Your task to perform on an android device: turn off javascript in the chrome app Image 0: 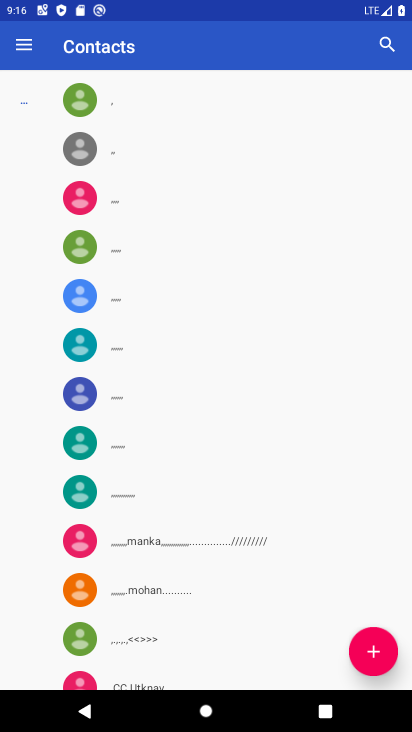
Step 0: press home button
Your task to perform on an android device: turn off javascript in the chrome app Image 1: 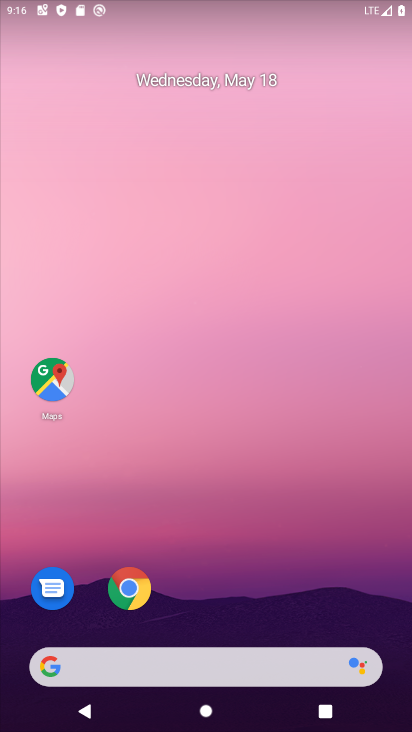
Step 1: click (134, 597)
Your task to perform on an android device: turn off javascript in the chrome app Image 2: 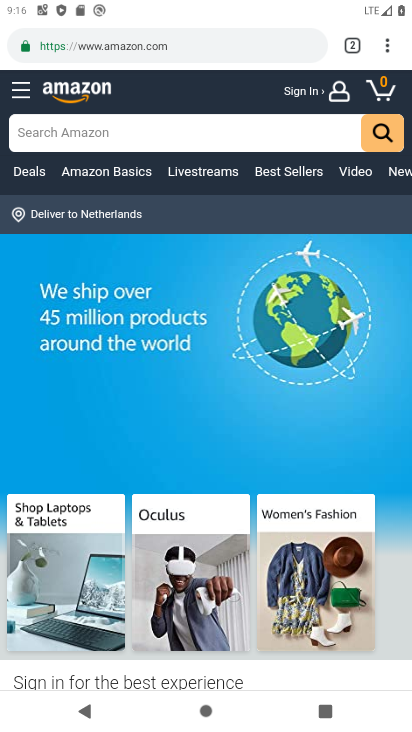
Step 2: click (387, 43)
Your task to perform on an android device: turn off javascript in the chrome app Image 3: 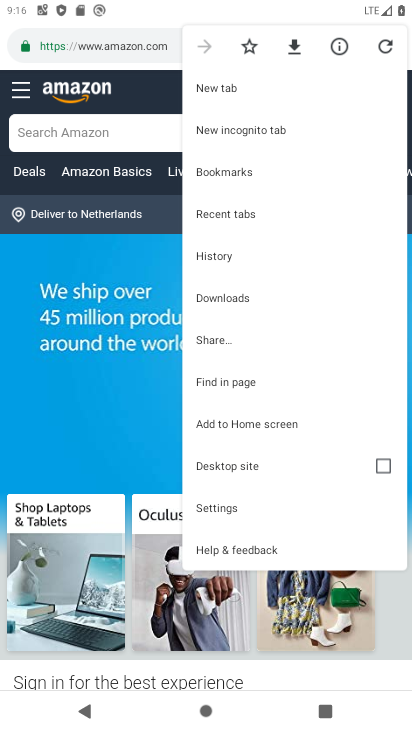
Step 3: click (227, 509)
Your task to perform on an android device: turn off javascript in the chrome app Image 4: 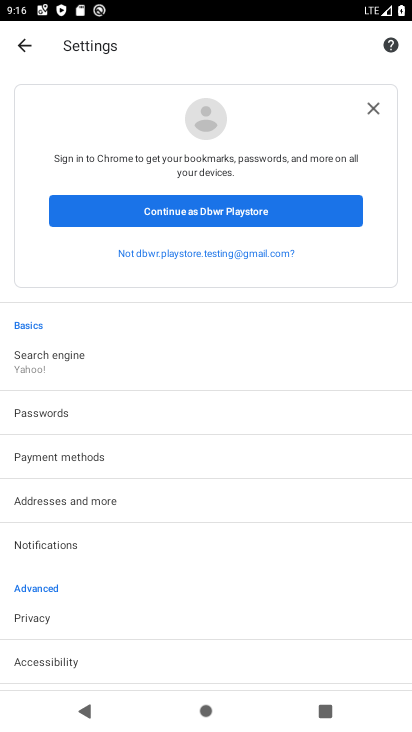
Step 4: drag from (126, 571) to (114, 329)
Your task to perform on an android device: turn off javascript in the chrome app Image 5: 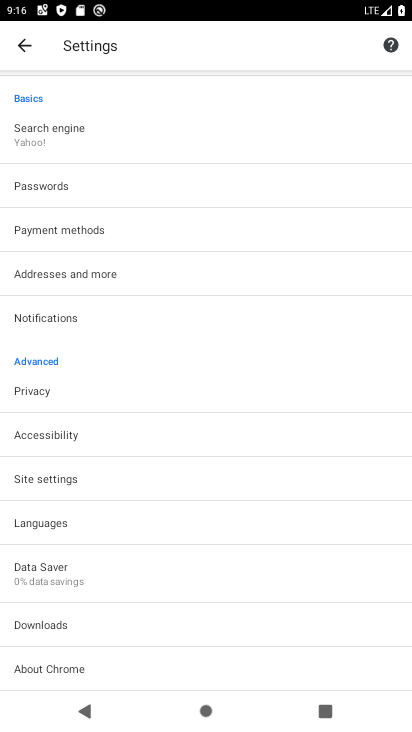
Step 5: click (39, 478)
Your task to perform on an android device: turn off javascript in the chrome app Image 6: 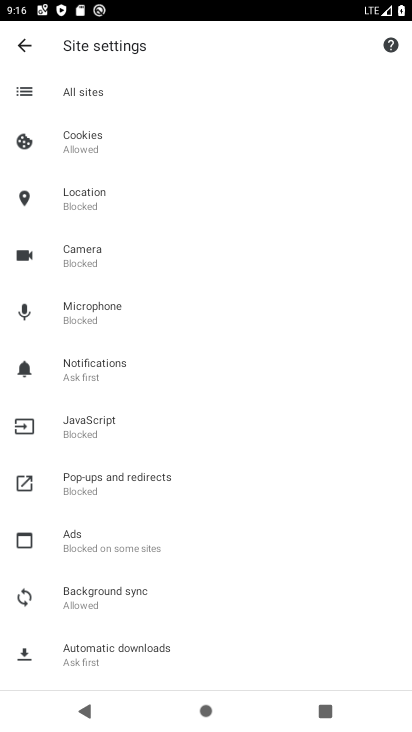
Step 6: click (77, 428)
Your task to perform on an android device: turn off javascript in the chrome app Image 7: 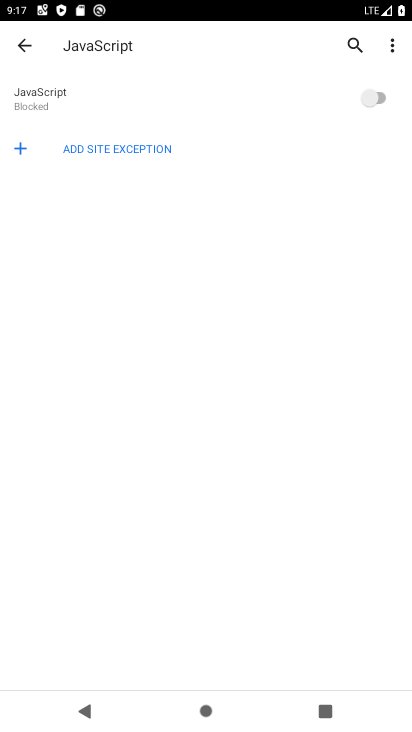
Step 7: task complete